Your task to perform on an android device: Open ESPN.com Image 0: 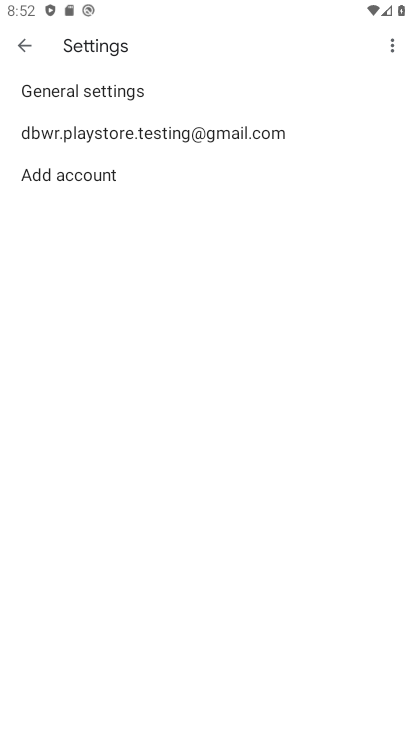
Step 0: press back button
Your task to perform on an android device: Open ESPN.com Image 1: 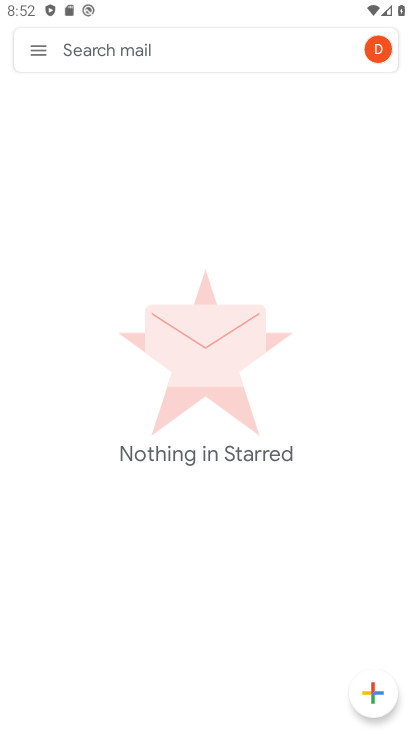
Step 1: press home button
Your task to perform on an android device: Open ESPN.com Image 2: 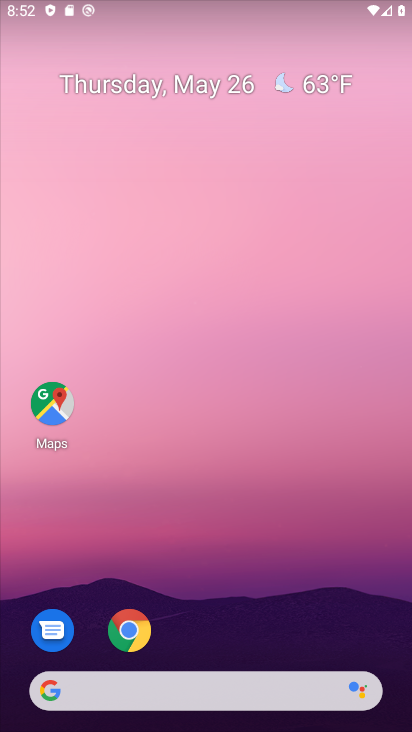
Step 2: drag from (300, 630) to (134, 144)
Your task to perform on an android device: Open ESPN.com Image 3: 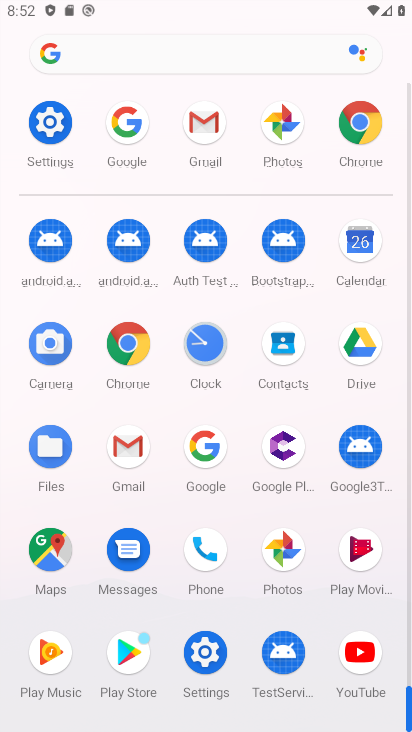
Step 3: click (132, 339)
Your task to perform on an android device: Open ESPN.com Image 4: 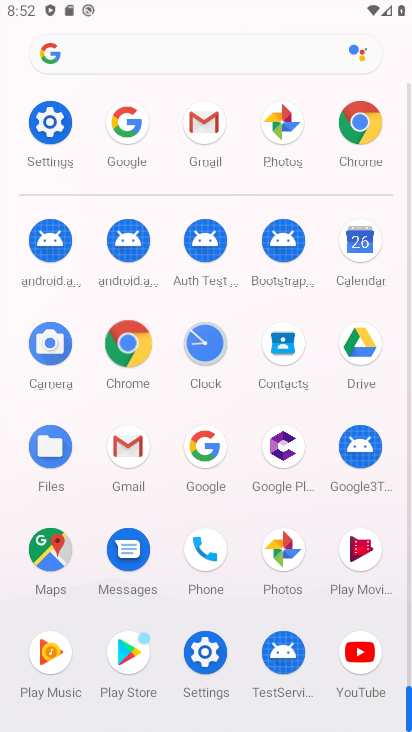
Step 4: click (143, 347)
Your task to perform on an android device: Open ESPN.com Image 5: 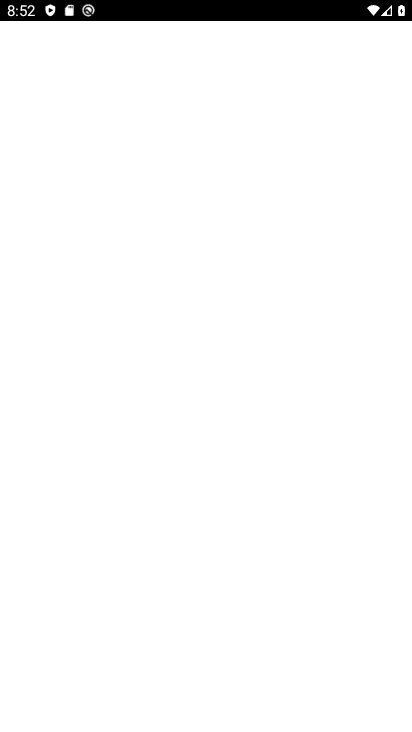
Step 5: click (143, 347)
Your task to perform on an android device: Open ESPN.com Image 6: 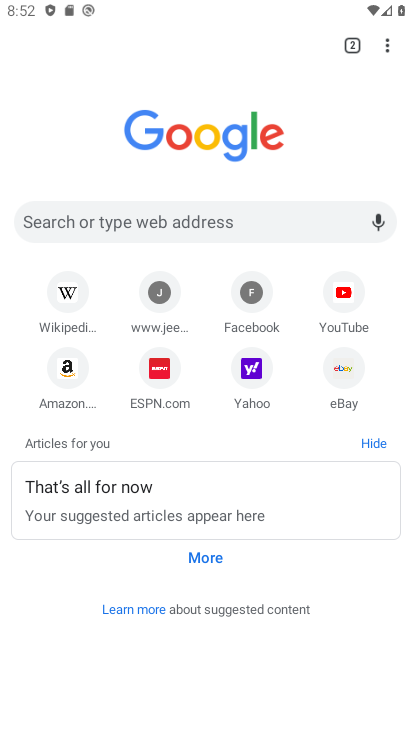
Step 6: click (154, 367)
Your task to perform on an android device: Open ESPN.com Image 7: 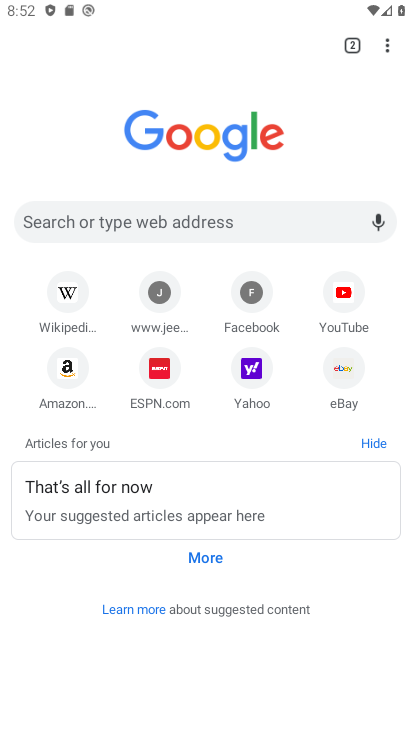
Step 7: click (154, 367)
Your task to perform on an android device: Open ESPN.com Image 8: 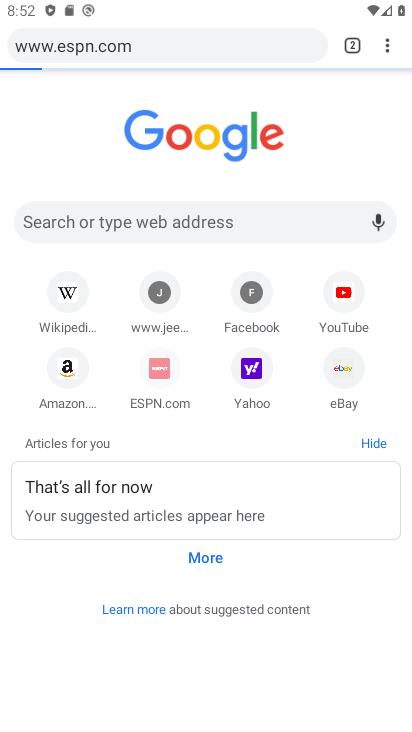
Step 8: click (154, 367)
Your task to perform on an android device: Open ESPN.com Image 9: 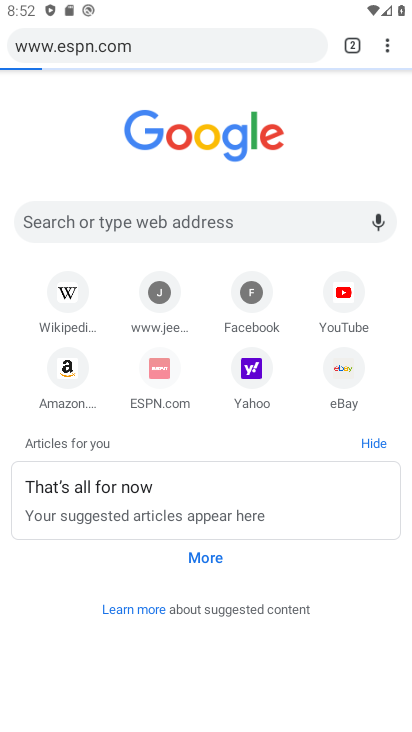
Step 9: click (154, 367)
Your task to perform on an android device: Open ESPN.com Image 10: 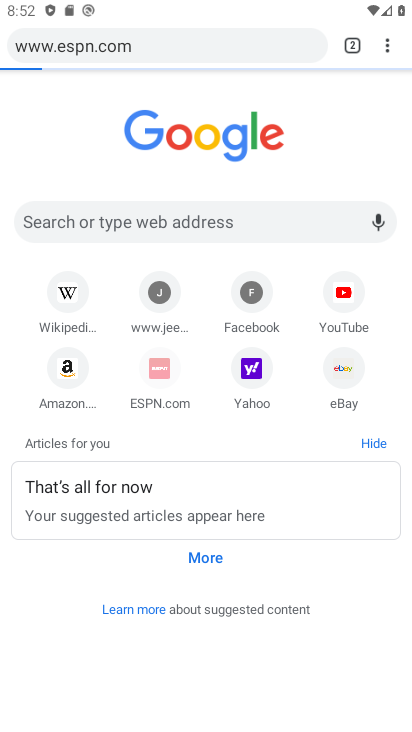
Step 10: click (154, 367)
Your task to perform on an android device: Open ESPN.com Image 11: 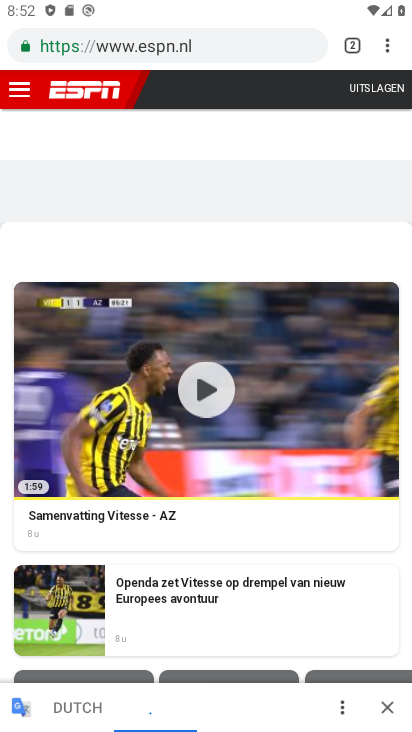
Step 11: task complete